Your task to perform on an android device: Check the news Image 0: 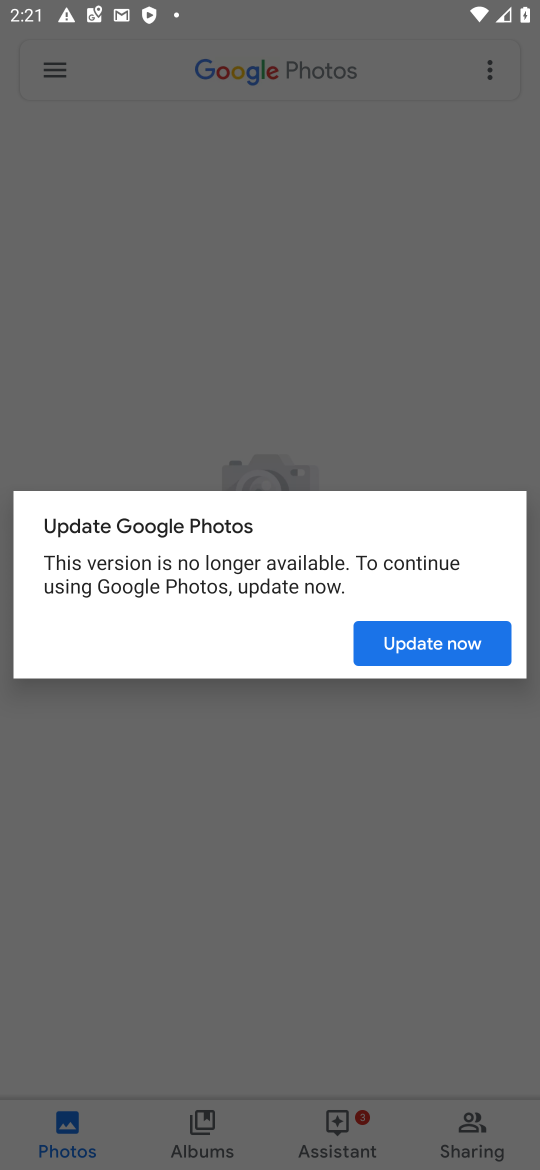
Step 0: press home button
Your task to perform on an android device: Check the news Image 1: 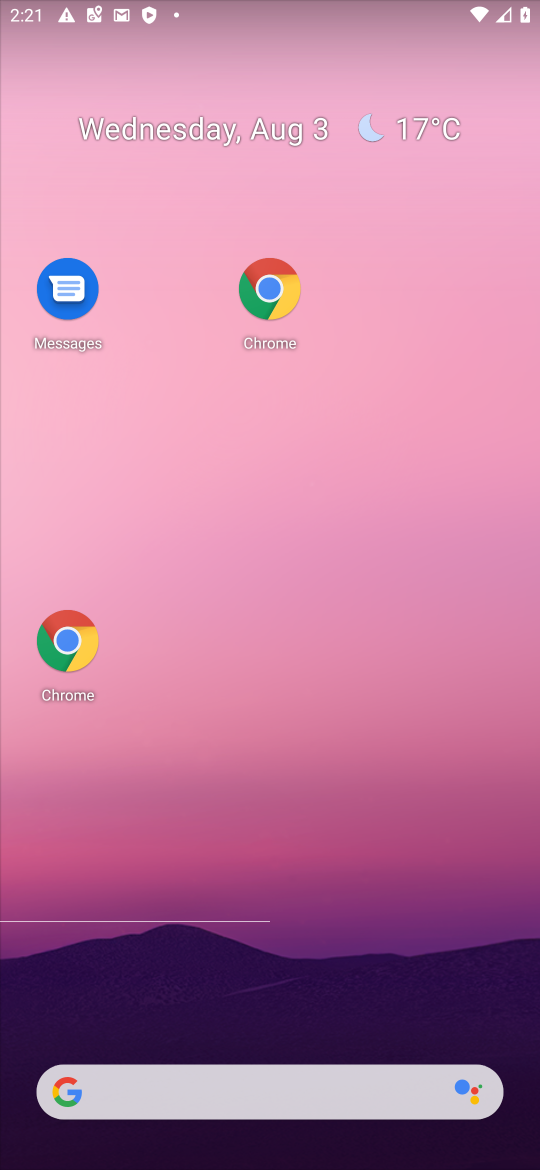
Step 1: click (312, 1080)
Your task to perform on an android device: Check the news Image 2: 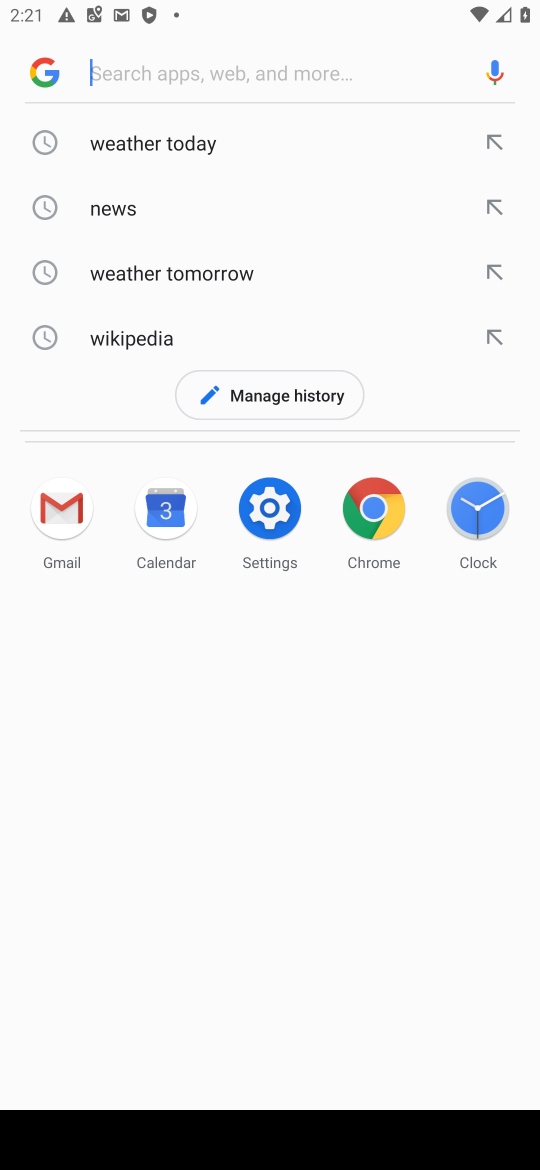
Step 2: click (101, 197)
Your task to perform on an android device: Check the news Image 3: 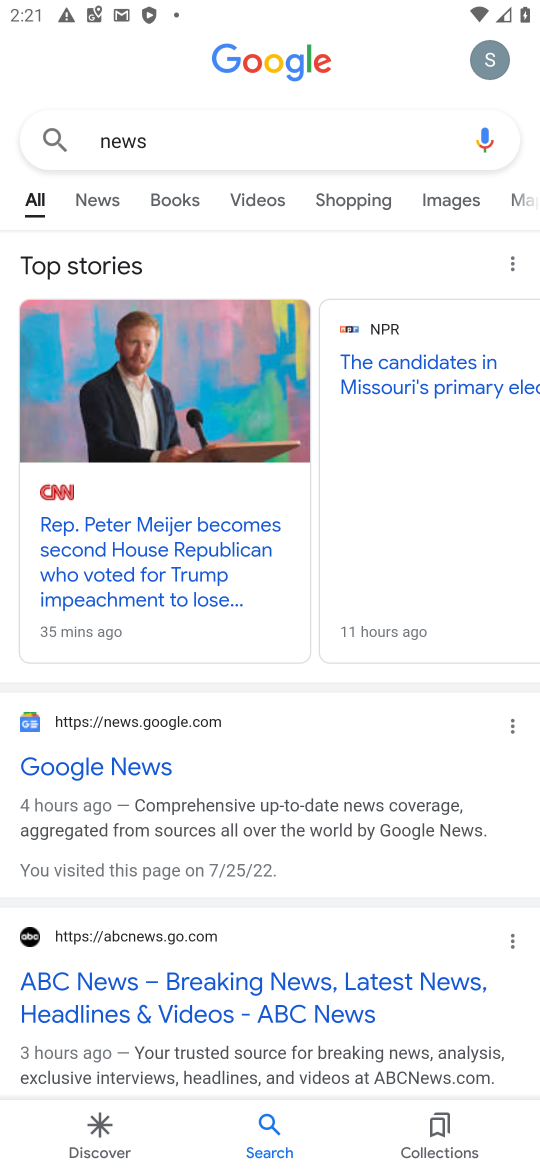
Step 3: task complete